Your task to perform on an android device: search for starred emails in the gmail app Image 0: 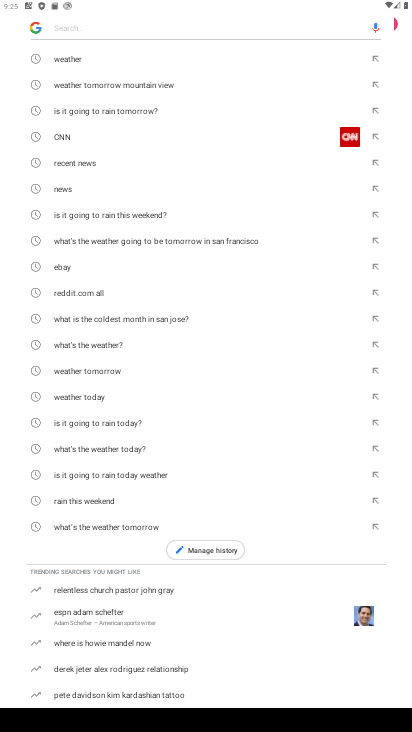
Step 0: press home button
Your task to perform on an android device: search for starred emails in the gmail app Image 1: 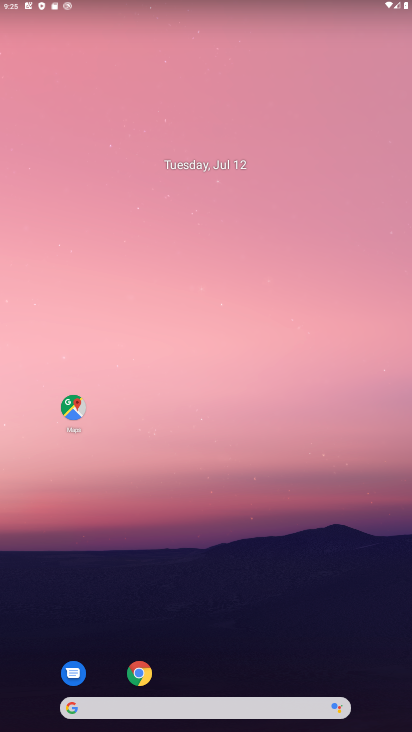
Step 1: drag from (187, 423) to (187, 7)
Your task to perform on an android device: search for starred emails in the gmail app Image 2: 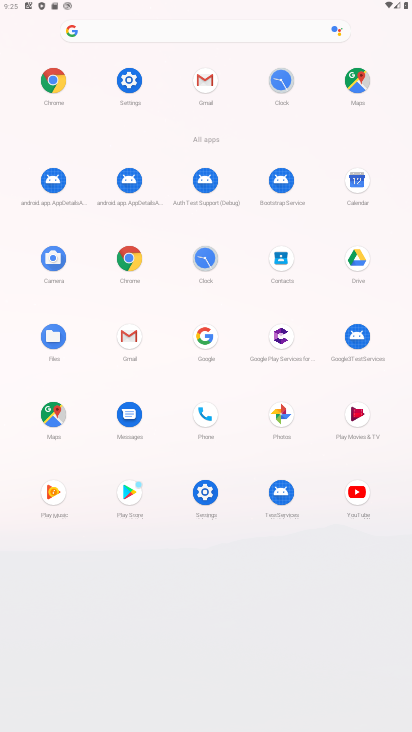
Step 2: click (199, 73)
Your task to perform on an android device: search for starred emails in the gmail app Image 3: 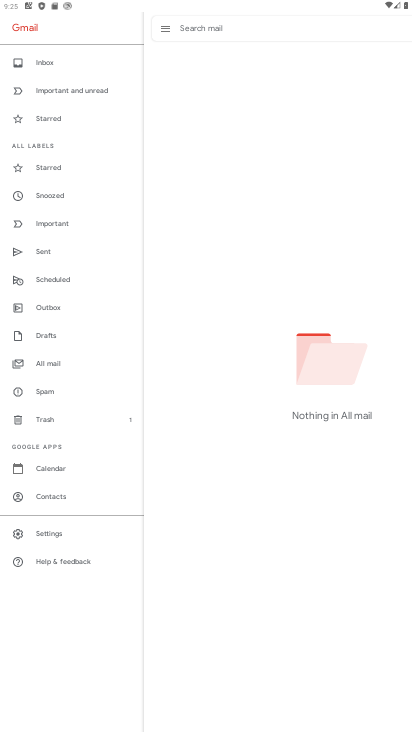
Step 3: click (41, 170)
Your task to perform on an android device: search for starred emails in the gmail app Image 4: 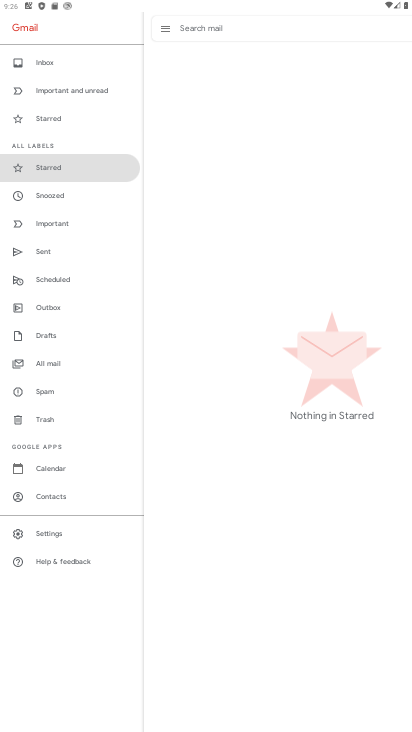
Step 4: task complete